Your task to perform on an android device: turn vacation reply on in the gmail app Image 0: 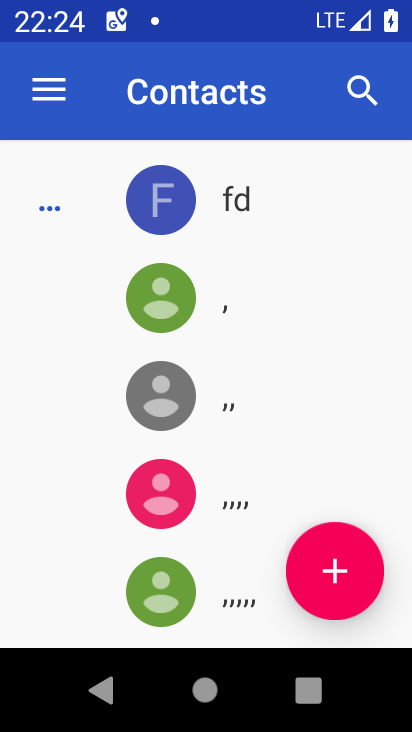
Step 0: press home button
Your task to perform on an android device: turn vacation reply on in the gmail app Image 1: 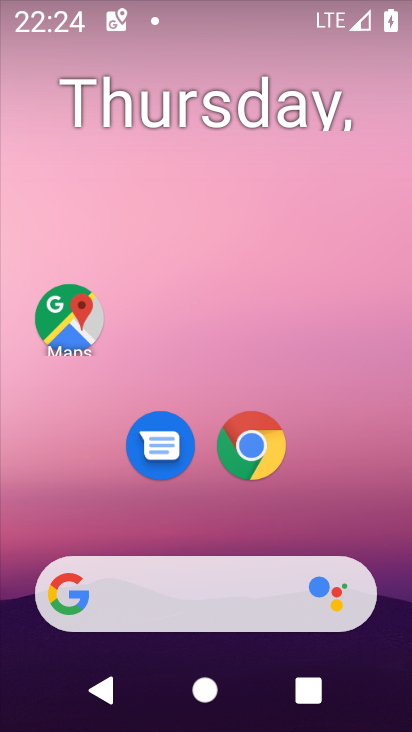
Step 1: drag from (227, 527) to (250, 182)
Your task to perform on an android device: turn vacation reply on in the gmail app Image 2: 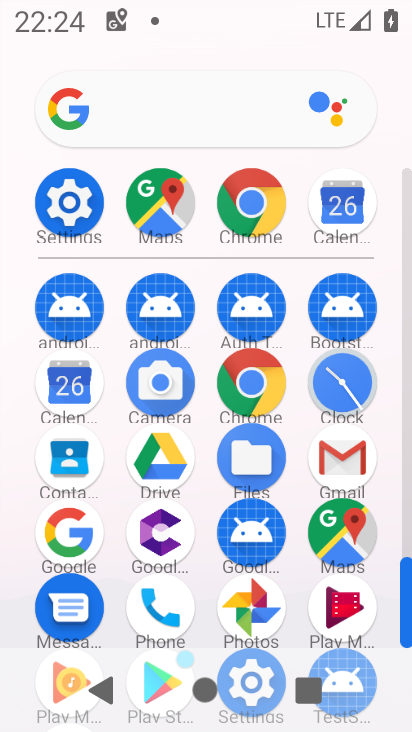
Step 2: click (329, 473)
Your task to perform on an android device: turn vacation reply on in the gmail app Image 3: 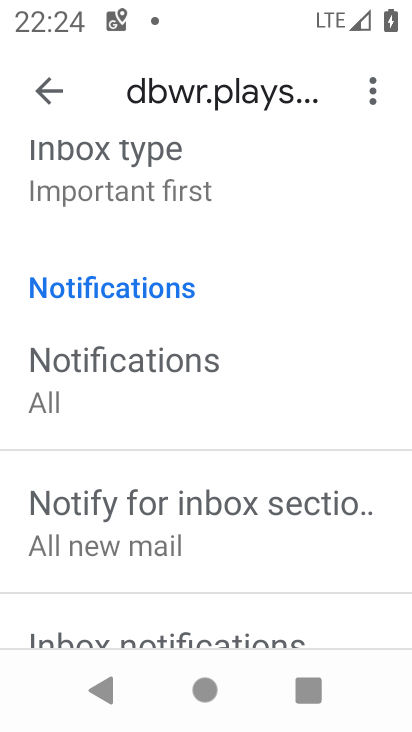
Step 3: drag from (195, 538) to (241, 166)
Your task to perform on an android device: turn vacation reply on in the gmail app Image 4: 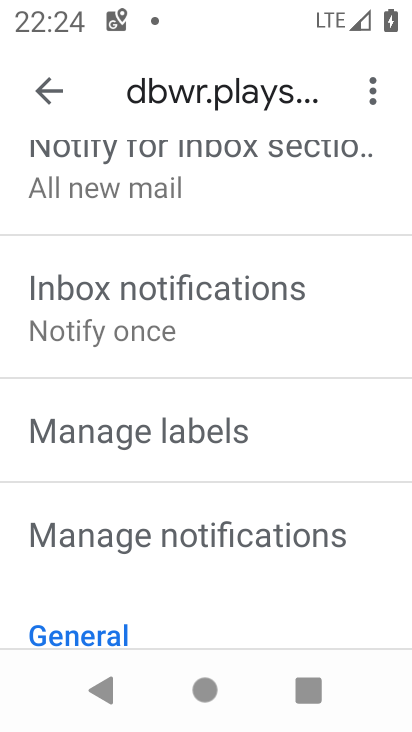
Step 4: drag from (204, 530) to (262, 149)
Your task to perform on an android device: turn vacation reply on in the gmail app Image 5: 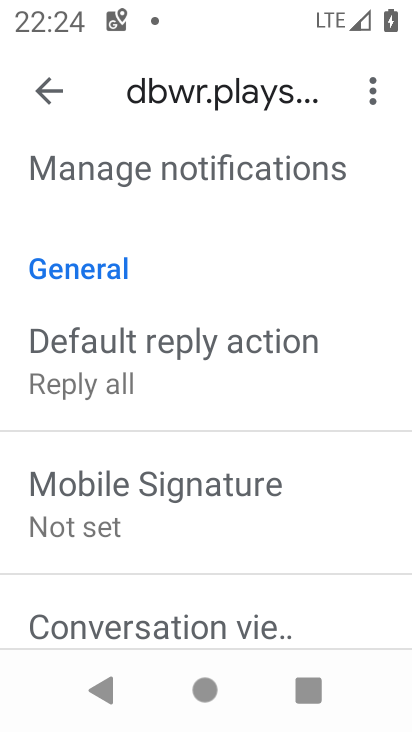
Step 5: drag from (133, 565) to (184, 260)
Your task to perform on an android device: turn vacation reply on in the gmail app Image 6: 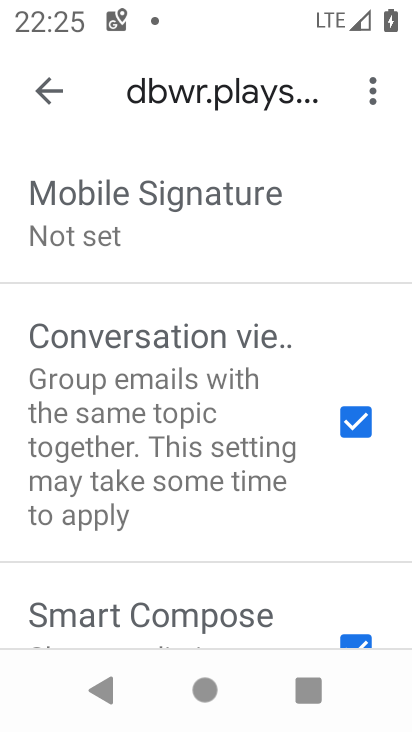
Step 6: drag from (171, 448) to (180, 146)
Your task to perform on an android device: turn vacation reply on in the gmail app Image 7: 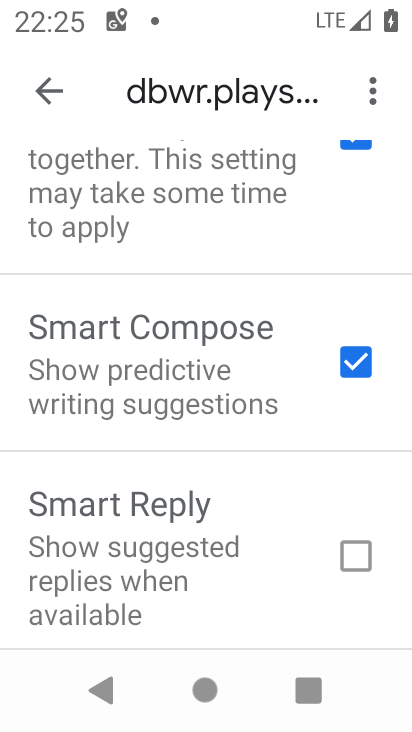
Step 7: drag from (157, 438) to (162, 110)
Your task to perform on an android device: turn vacation reply on in the gmail app Image 8: 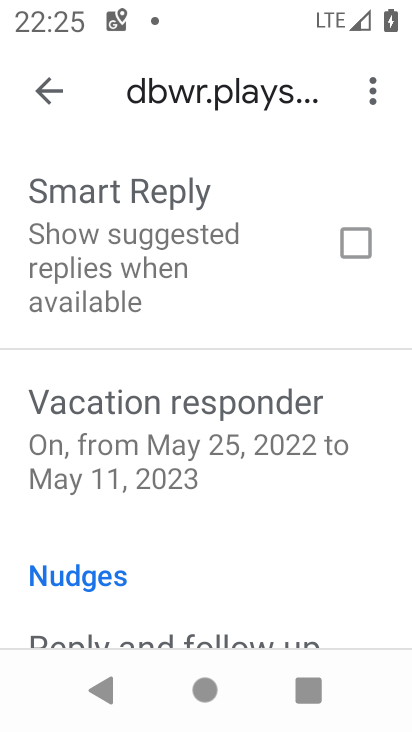
Step 8: click (182, 434)
Your task to perform on an android device: turn vacation reply on in the gmail app Image 9: 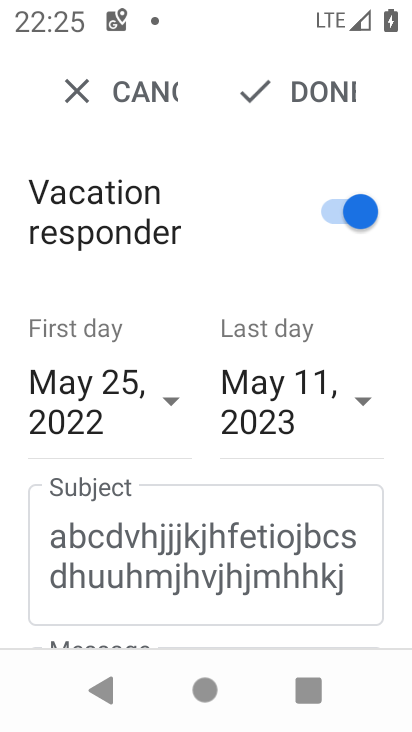
Step 9: click (342, 83)
Your task to perform on an android device: turn vacation reply on in the gmail app Image 10: 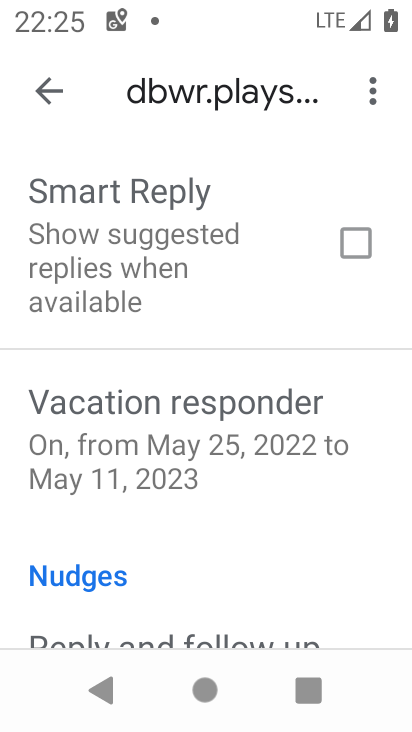
Step 10: task complete